Your task to perform on an android device: open chrome and create a bookmark for the current page Image 0: 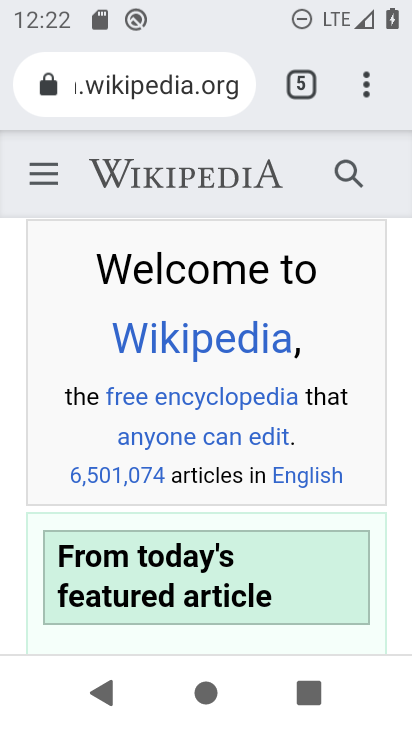
Step 0: press home button
Your task to perform on an android device: open chrome and create a bookmark for the current page Image 1: 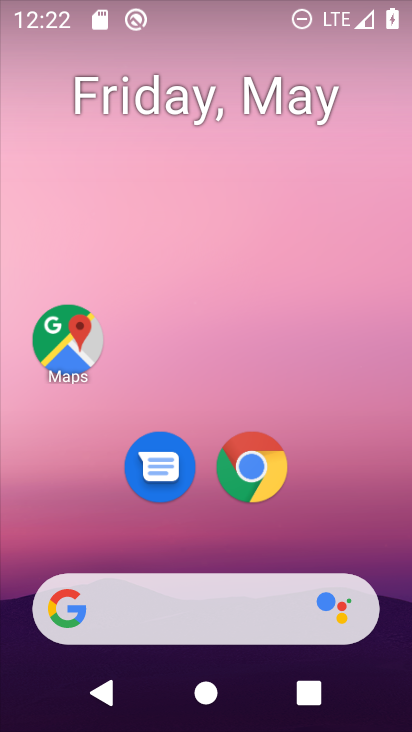
Step 1: drag from (299, 589) to (263, 18)
Your task to perform on an android device: open chrome and create a bookmark for the current page Image 2: 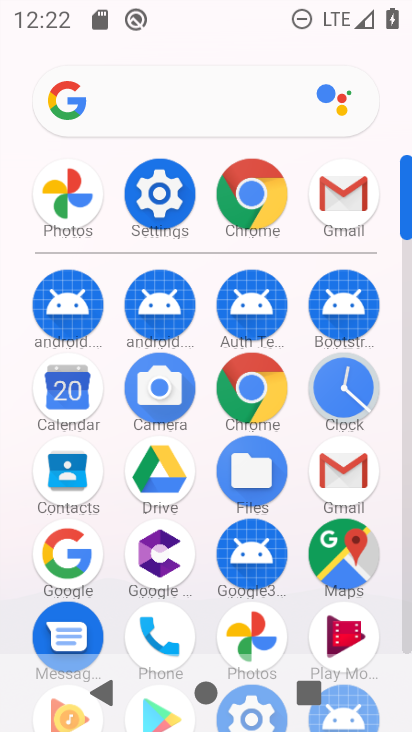
Step 2: click (254, 390)
Your task to perform on an android device: open chrome and create a bookmark for the current page Image 3: 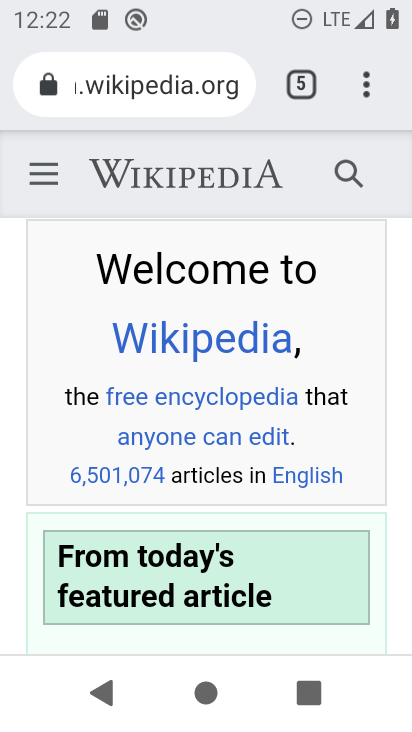
Step 3: click (362, 97)
Your task to perform on an android device: open chrome and create a bookmark for the current page Image 4: 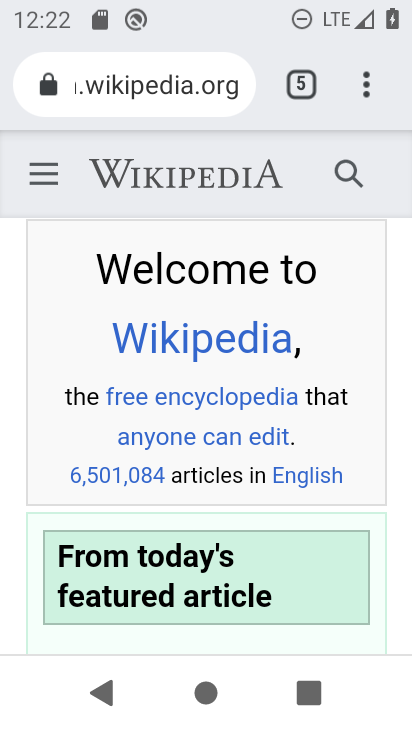
Step 4: task complete